Your task to perform on an android device: Show me popular videos on Youtube Image 0: 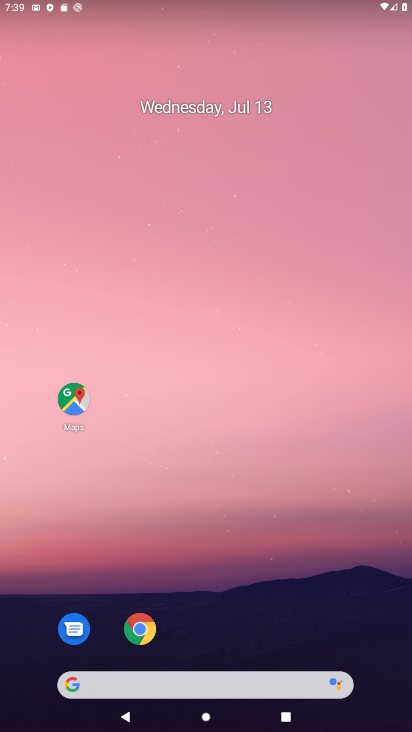
Step 0: drag from (211, 611) to (197, 153)
Your task to perform on an android device: Show me popular videos on Youtube Image 1: 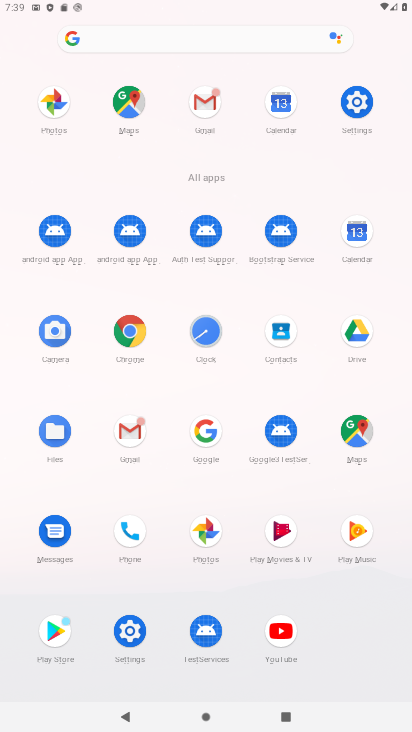
Step 1: click (277, 629)
Your task to perform on an android device: Show me popular videos on Youtube Image 2: 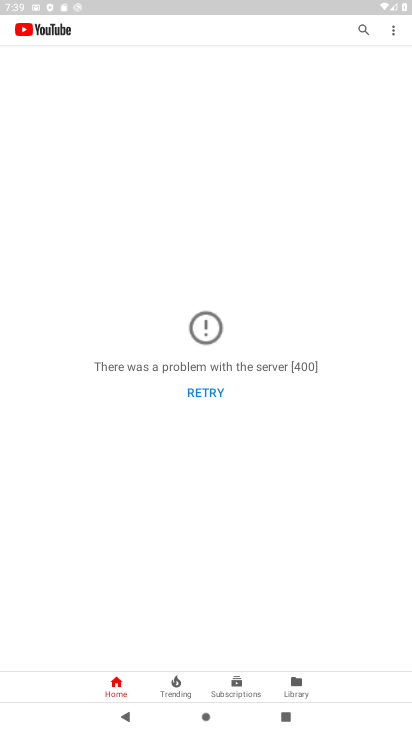
Step 2: task complete